Your task to perform on an android device: change the clock display to digital Image 0: 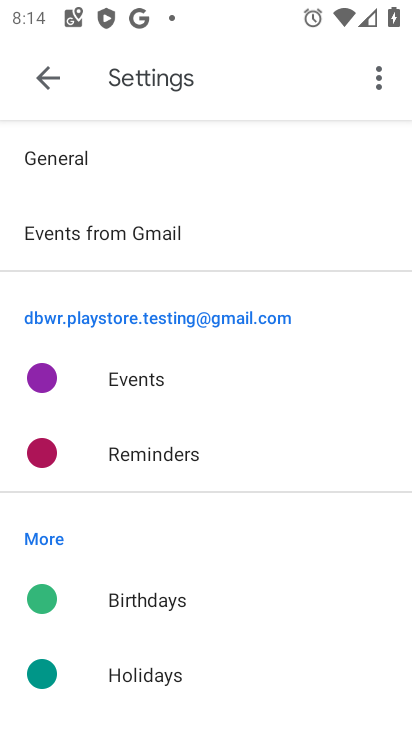
Step 0: press home button
Your task to perform on an android device: change the clock display to digital Image 1: 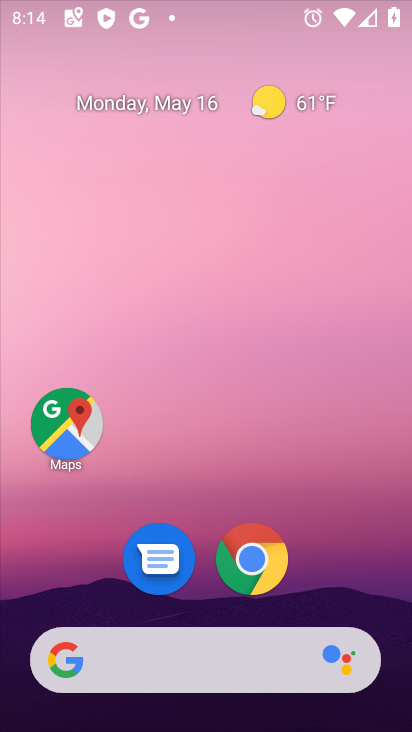
Step 1: drag from (331, 572) to (305, 46)
Your task to perform on an android device: change the clock display to digital Image 2: 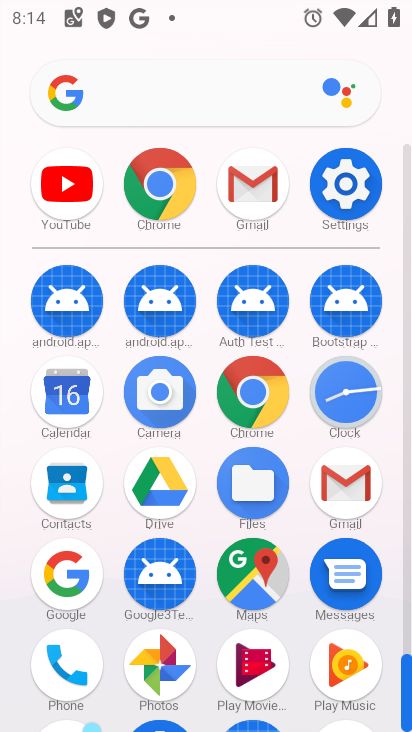
Step 2: click (352, 391)
Your task to perform on an android device: change the clock display to digital Image 3: 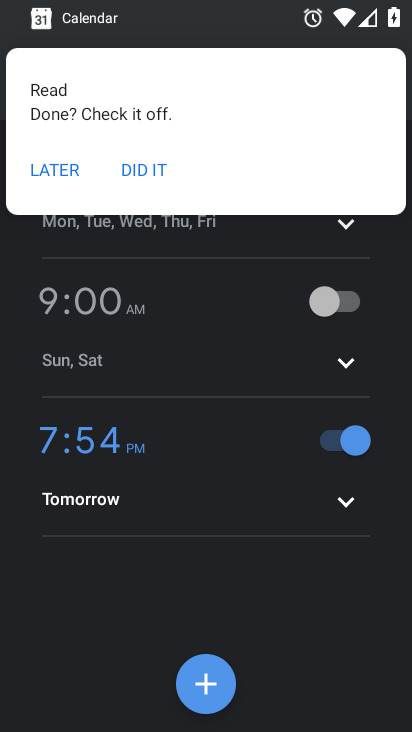
Step 3: click (38, 163)
Your task to perform on an android device: change the clock display to digital Image 4: 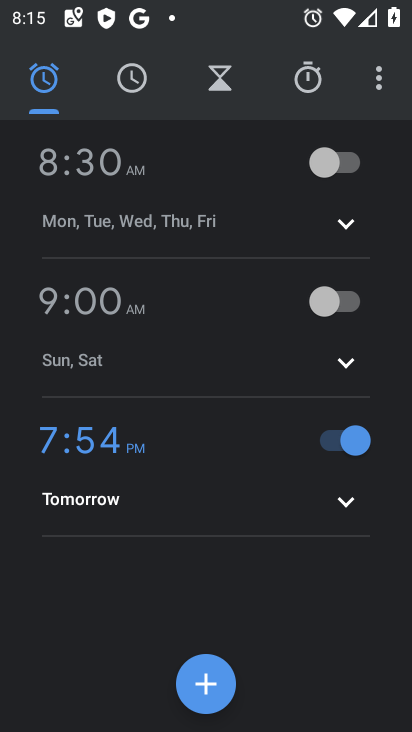
Step 4: drag from (367, 91) to (284, 163)
Your task to perform on an android device: change the clock display to digital Image 5: 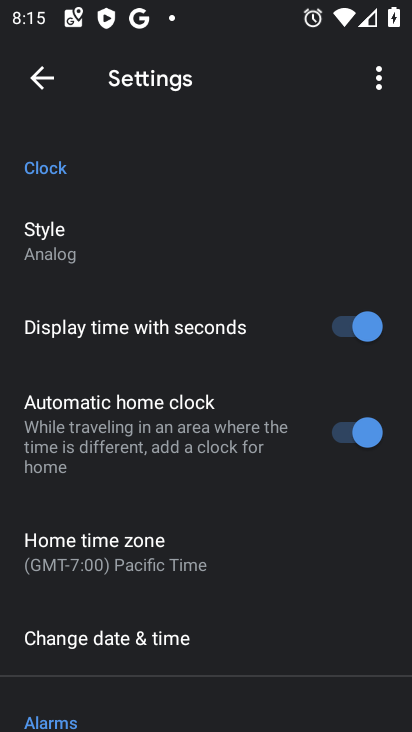
Step 5: click (216, 249)
Your task to perform on an android device: change the clock display to digital Image 6: 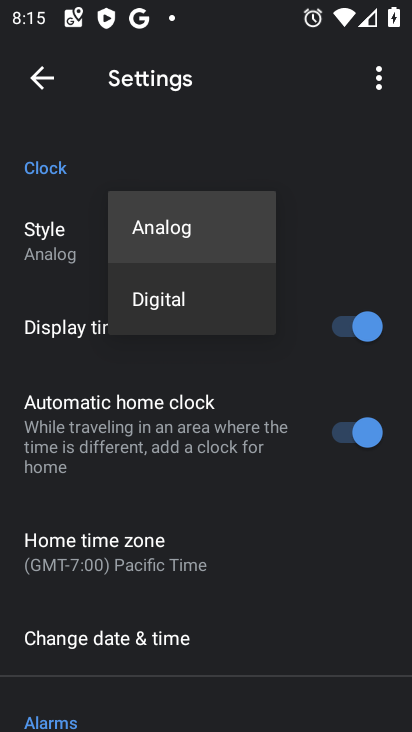
Step 6: click (151, 308)
Your task to perform on an android device: change the clock display to digital Image 7: 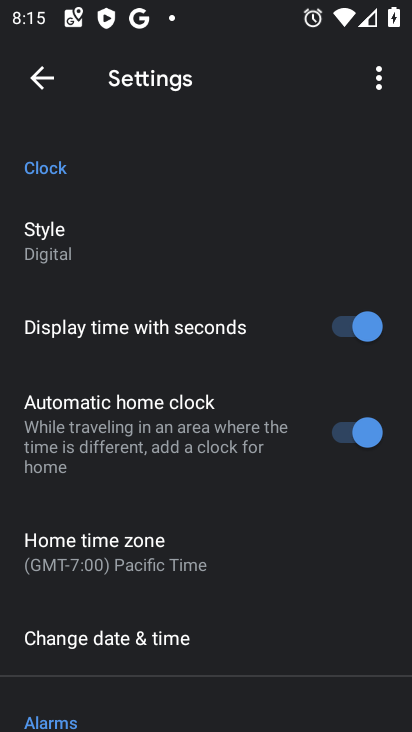
Step 7: task complete